Your task to perform on an android device: Do I have any events this weekend? Image 0: 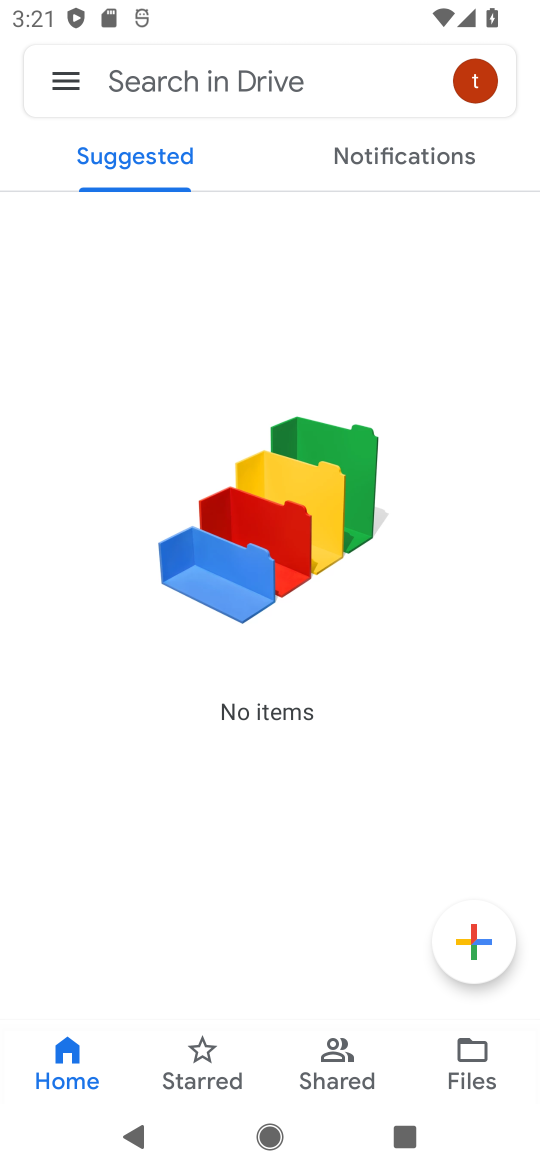
Step 0: press home button
Your task to perform on an android device: Do I have any events this weekend? Image 1: 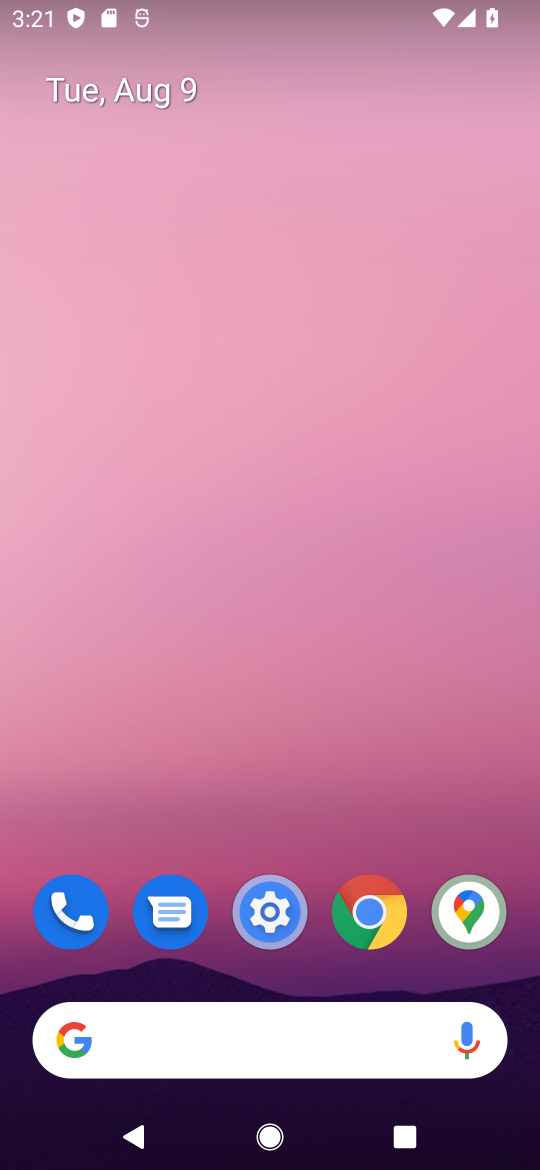
Step 1: drag from (274, 796) to (205, 51)
Your task to perform on an android device: Do I have any events this weekend? Image 2: 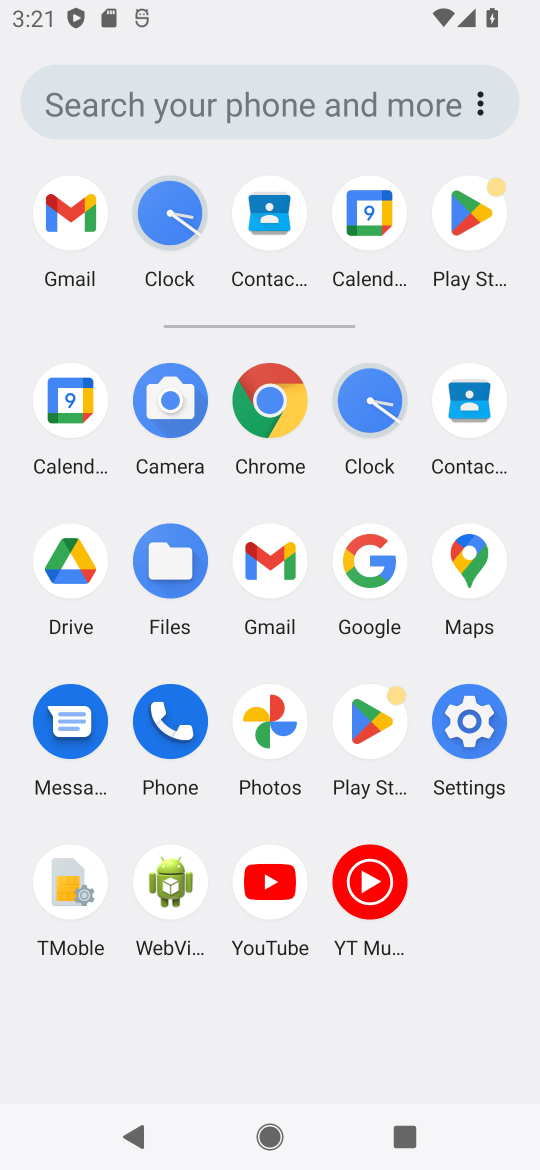
Step 2: click (359, 215)
Your task to perform on an android device: Do I have any events this weekend? Image 3: 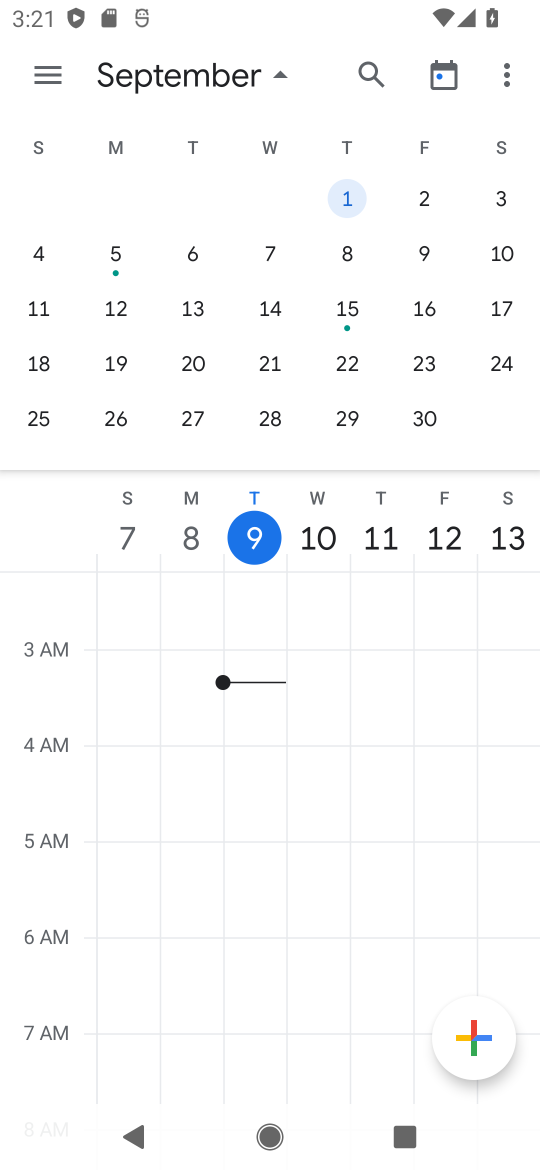
Step 3: drag from (37, 253) to (527, 289)
Your task to perform on an android device: Do I have any events this weekend? Image 4: 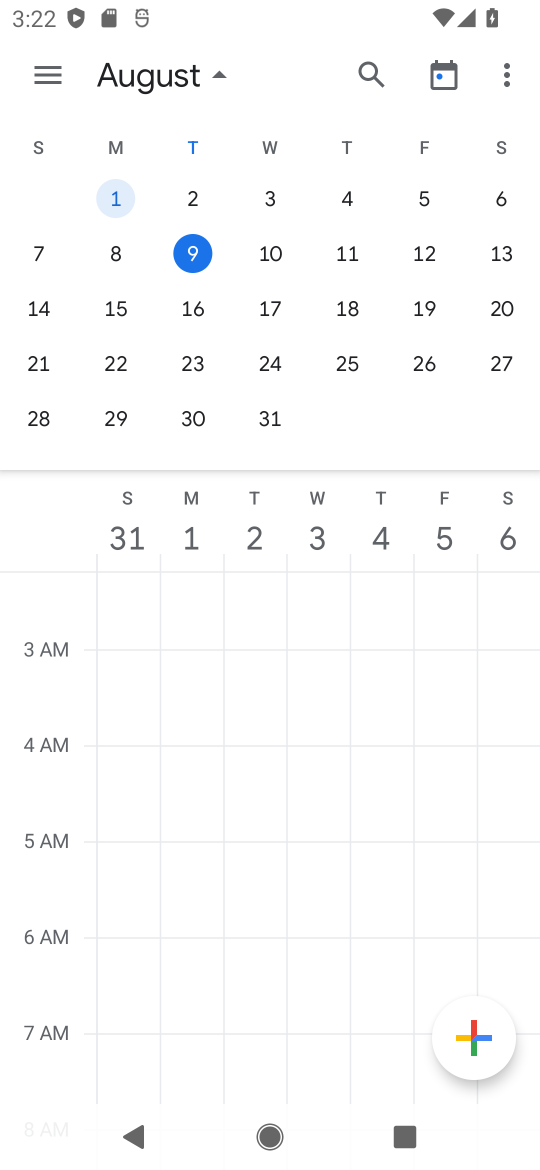
Step 4: click (183, 243)
Your task to perform on an android device: Do I have any events this weekend? Image 5: 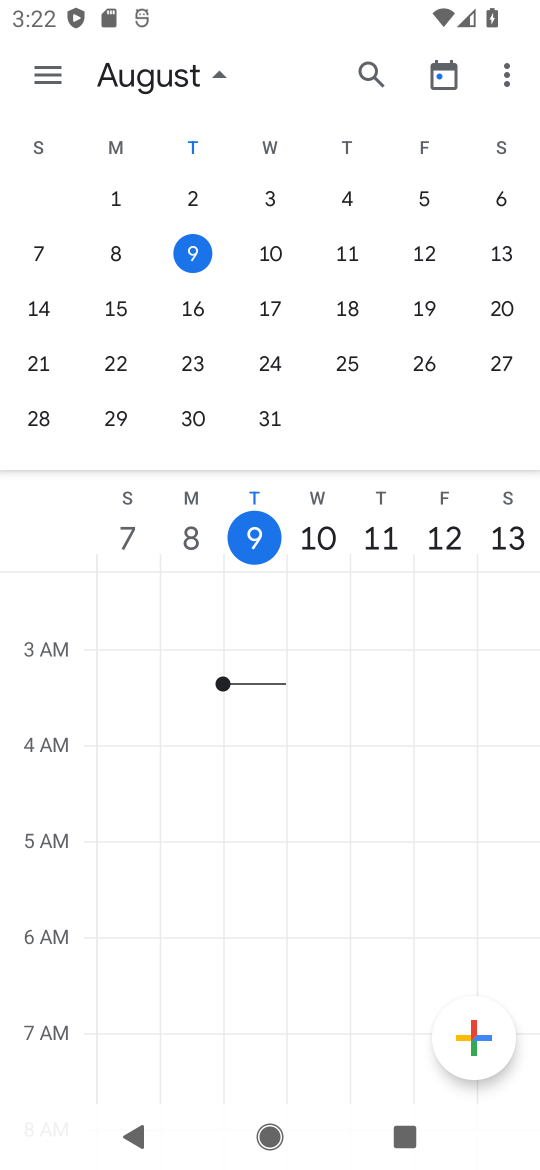
Step 5: task complete